Your task to perform on an android device: empty trash in the gmail app Image 0: 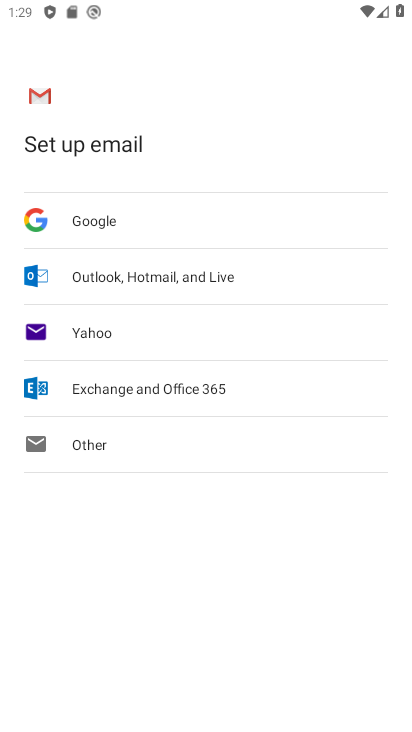
Step 0: press back button
Your task to perform on an android device: empty trash in the gmail app Image 1: 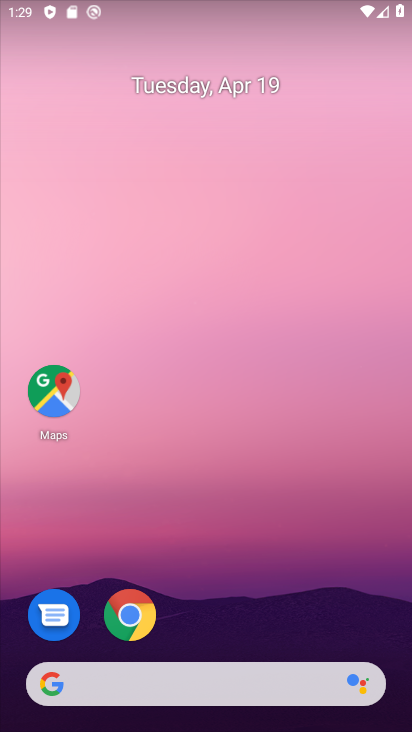
Step 1: drag from (203, 660) to (299, 123)
Your task to perform on an android device: empty trash in the gmail app Image 2: 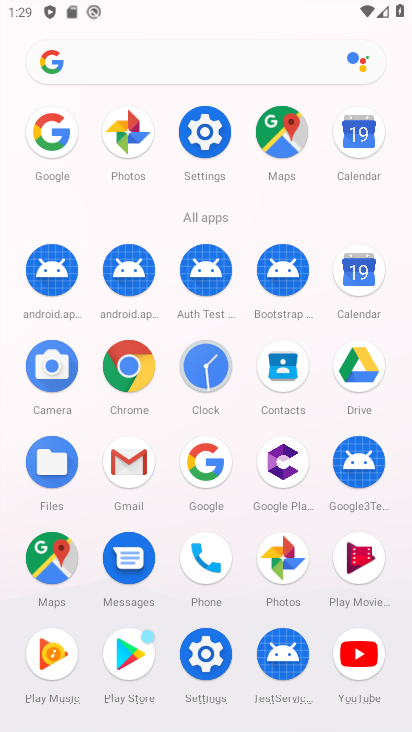
Step 2: click (132, 462)
Your task to perform on an android device: empty trash in the gmail app Image 3: 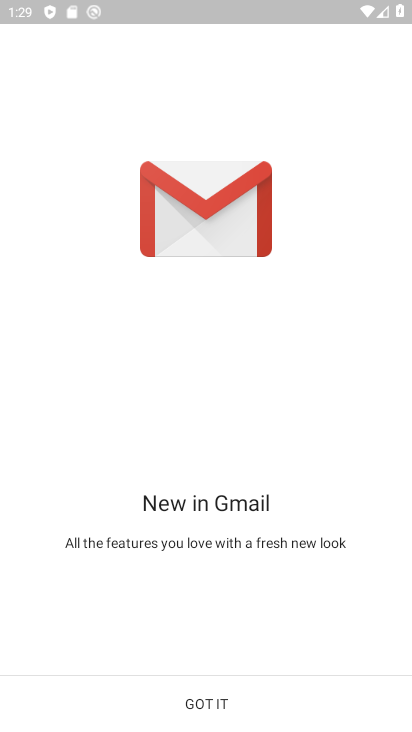
Step 3: click (229, 708)
Your task to perform on an android device: empty trash in the gmail app Image 4: 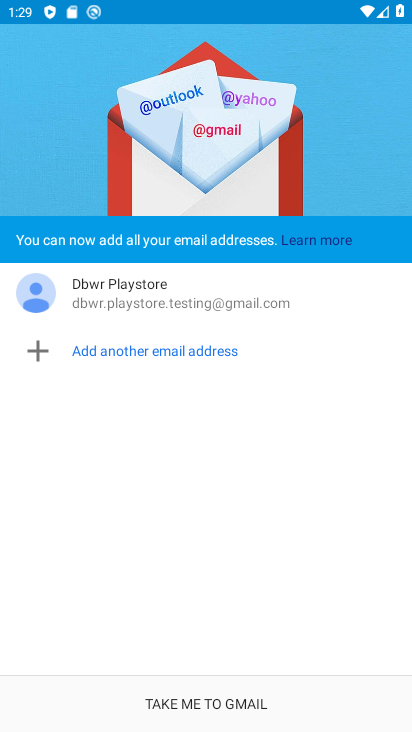
Step 4: click (229, 708)
Your task to perform on an android device: empty trash in the gmail app Image 5: 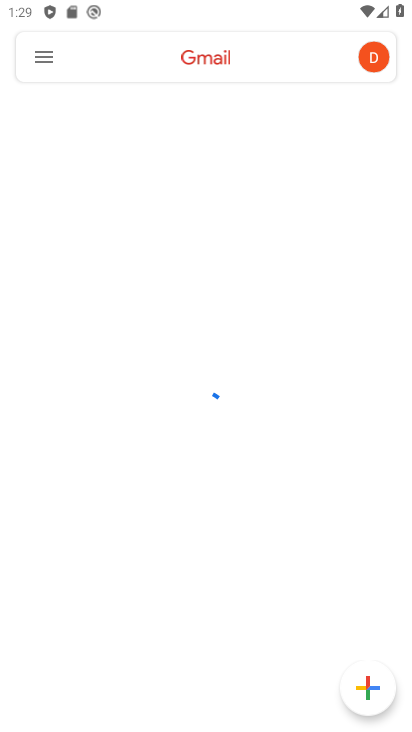
Step 5: click (52, 59)
Your task to perform on an android device: empty trash in the gmail app Image 6: 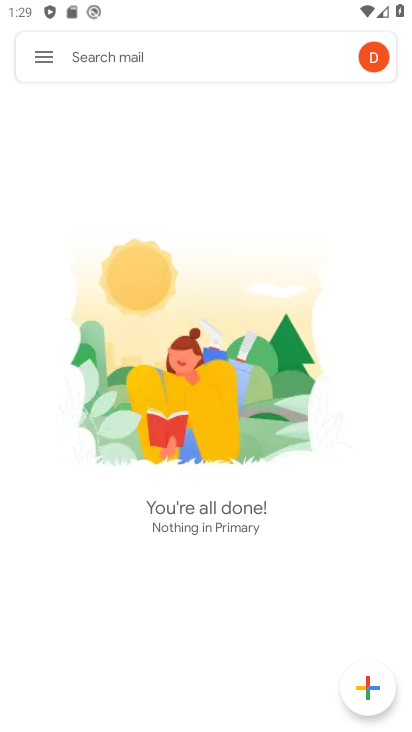
Step 6: click (52, 59)
Your task to perform on an android device: empty trash in the gmail app Image 7: 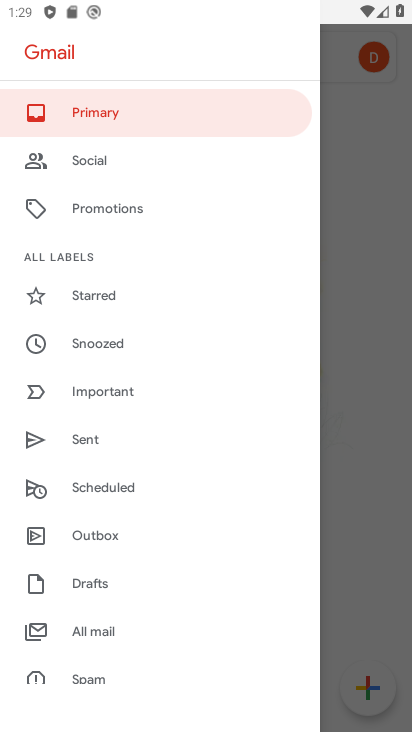
Step 7: drag from (142, 592) to (261, 344)
Your task to perform on an android device: empty trash in the gmail app Image 8: 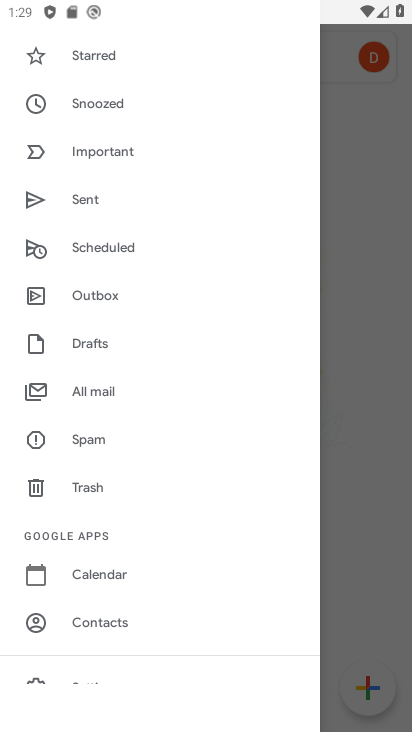
Step 8: click (106, 493)
Your task to perform on an android device: empty trash in the gmail app Image 9: 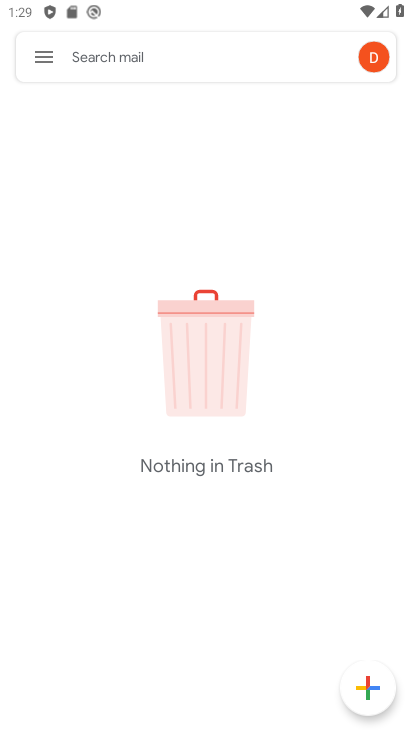
Step 9: task complete